Your task to perform on an android device: Open settings on Google Maps Image 0: 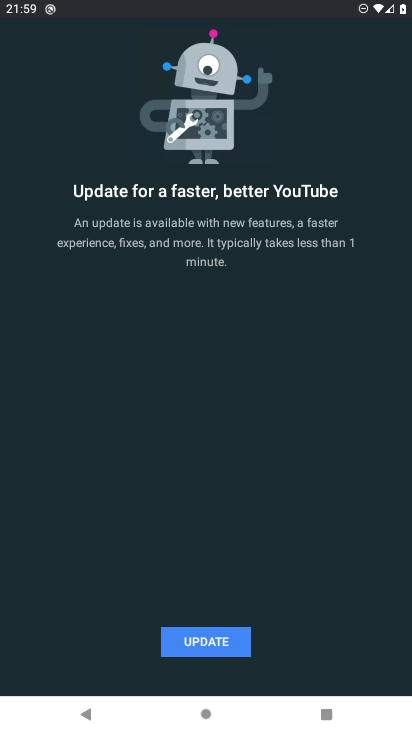
Step 0: press home button
Your task to perform on an android device: Open settings on Google Maps Image 1: 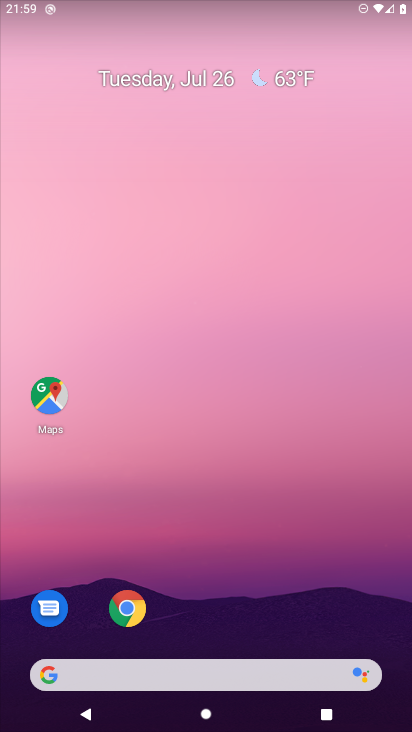
Step 1: click (53, 389)
Your task to perform on an android device: Open settings on Google Maps Image 2: 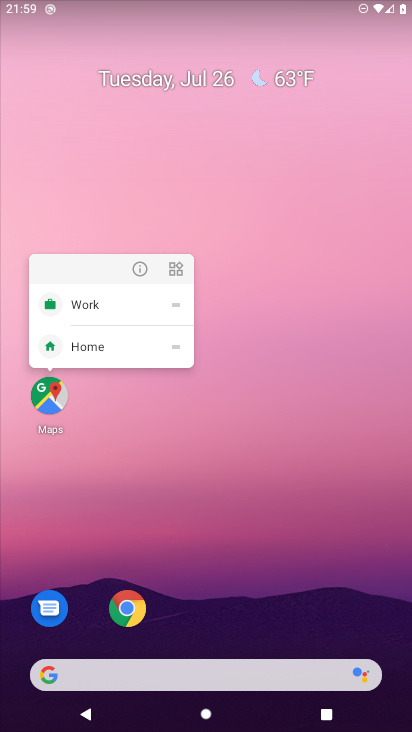
Step 2: click (54, 399)
Your task to perform on an android device: Open settings on Google Maps Image 3: 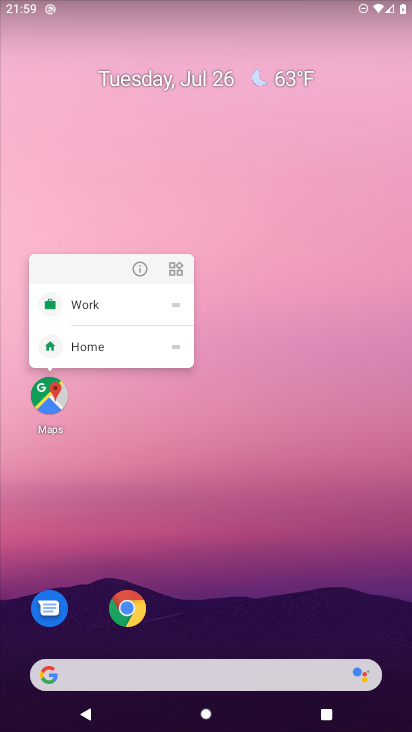
Step 3: click (50, 406)
Your task to perform on an android device: Open settings on Google Maps Image 4: 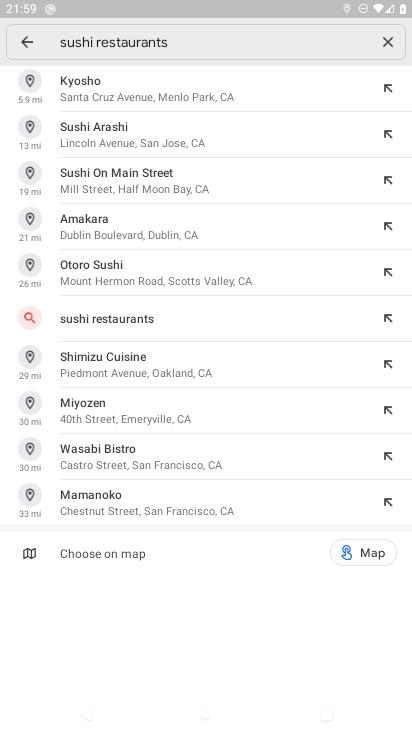
Step 4: click (23, 46)
Your task to perform on an android device: Open settings on Google Maps Image 5: 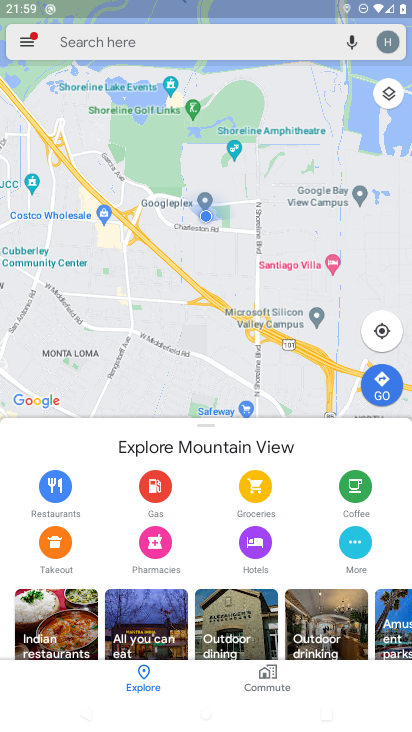
Step 5: click (31, 41)
Your task to perform on an android device: Open settings on Google Maps Image 6: 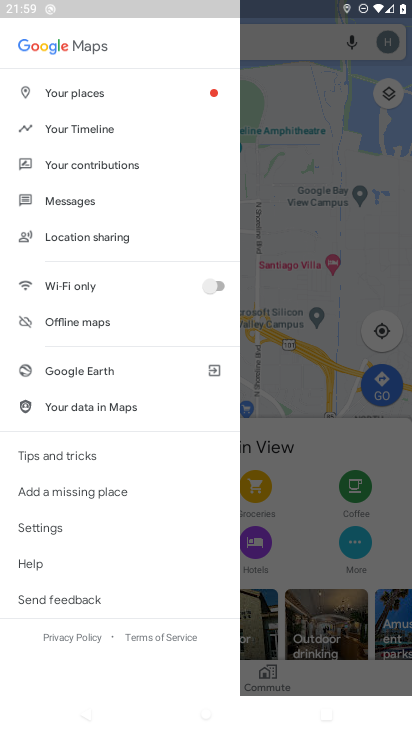
Step 6: click (60, 524)
Your task to perform on an android device: Open settings on Google Maps Image 7: 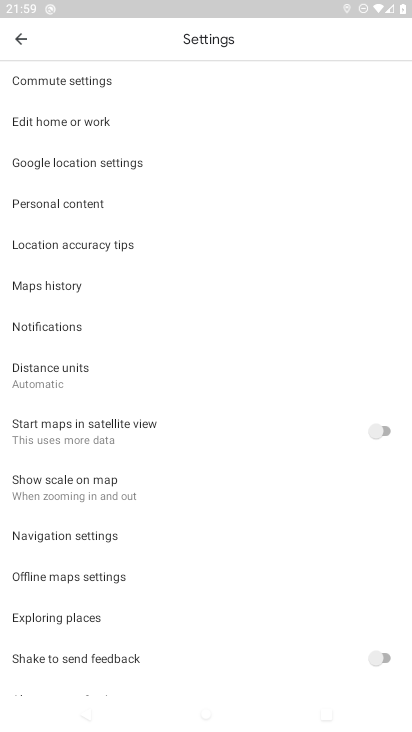
Step 7: task complete